Your task to perform on an android device: Turn off the flashlight Image 0: 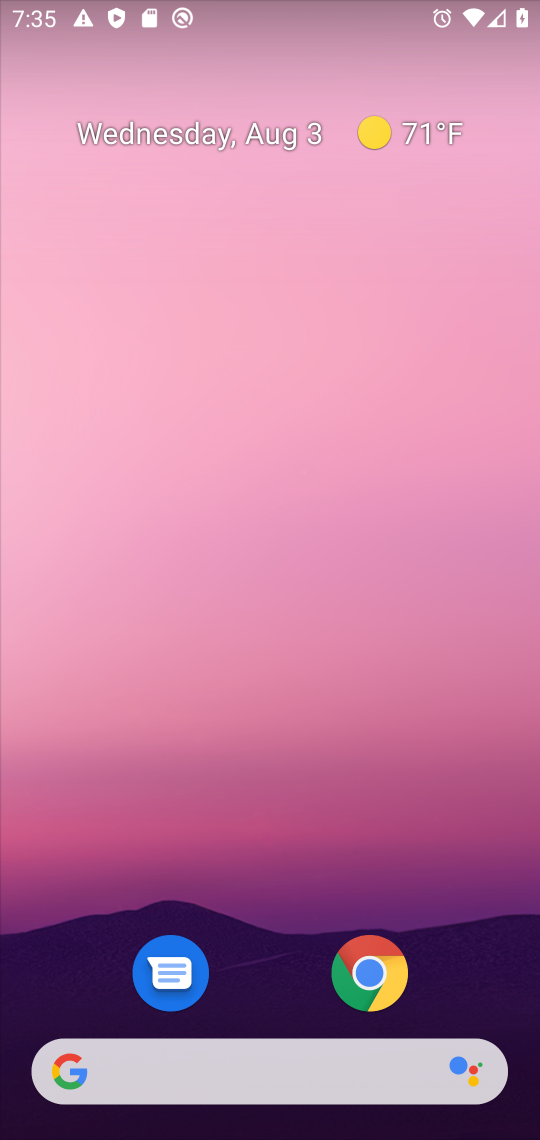
Step 0: drag from (238, 864) to (167, 308)
Your task to perform on an android device: Turn off the flashlight Image 1: 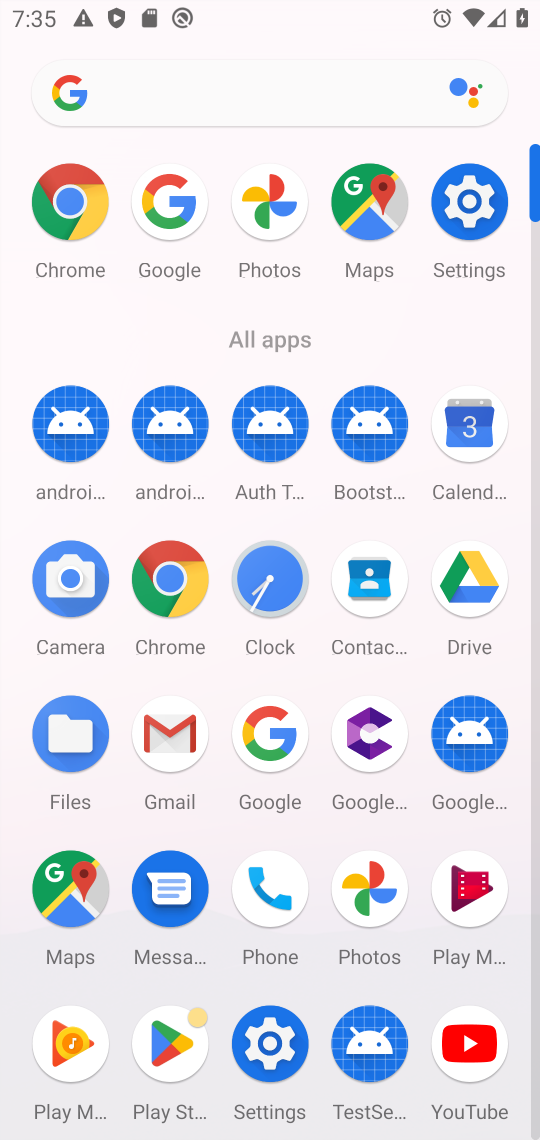
Step 1: click (465, 209)
Your task to perform on an android device: Turn off the flashlight Image 2: 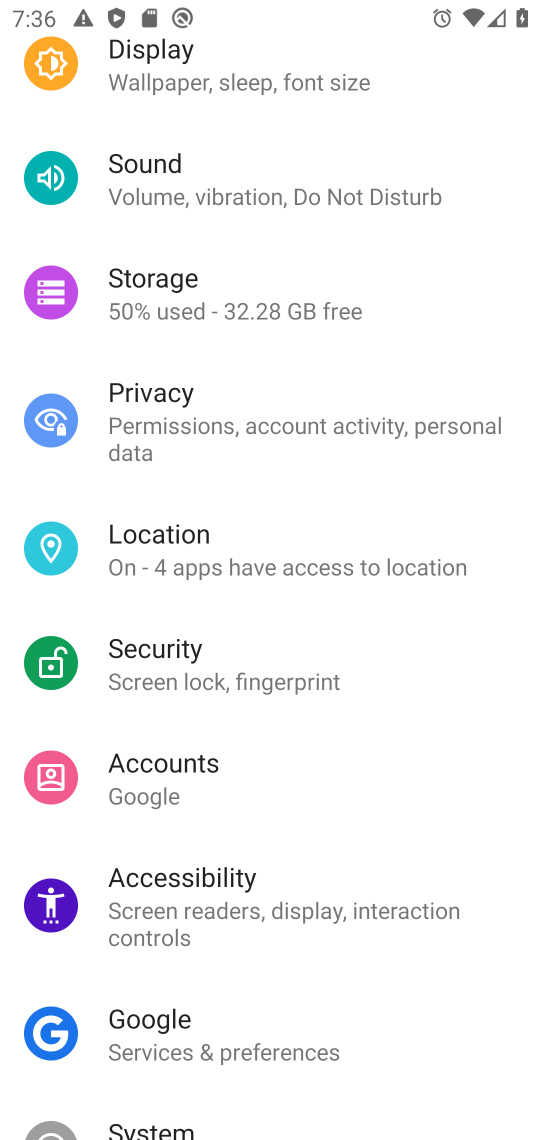
Step 2: task complete